Your task to perform on an android device: Open Youtube and go to the subscriptions tab Image 0: 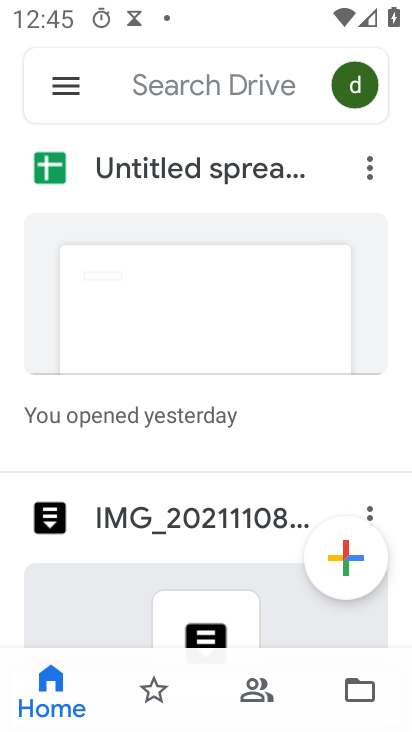
Step 0: press home button
Your task to perform on an android device: Open Youtube and go to the subscriptions tab Image 1: 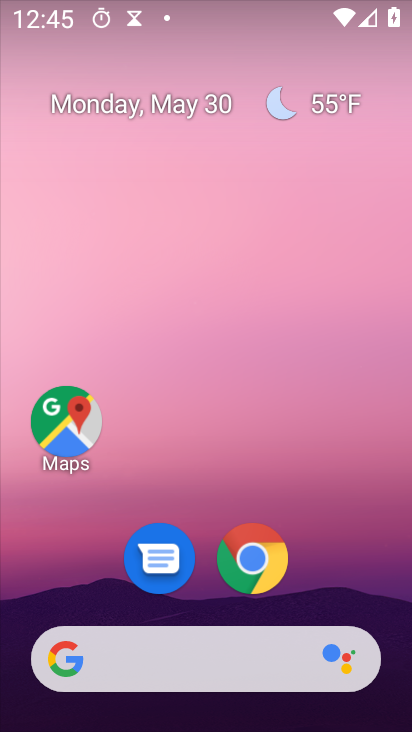
Step 1: drag from (344, 544) to (317, 106)
Your task to perform on an android device: Open Youtube and go to the subscriptions tab Image 2: 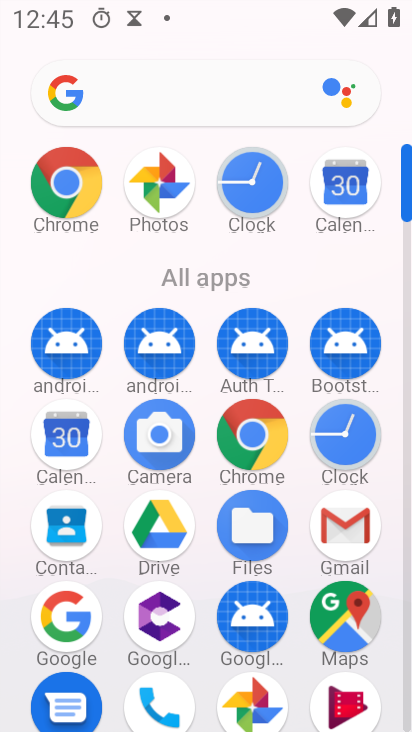
Step 2: drag from (391, 505) to (411, 601)
Your task to perform on an android device: Open Youtube and go to the subscriptions tab Image 3: 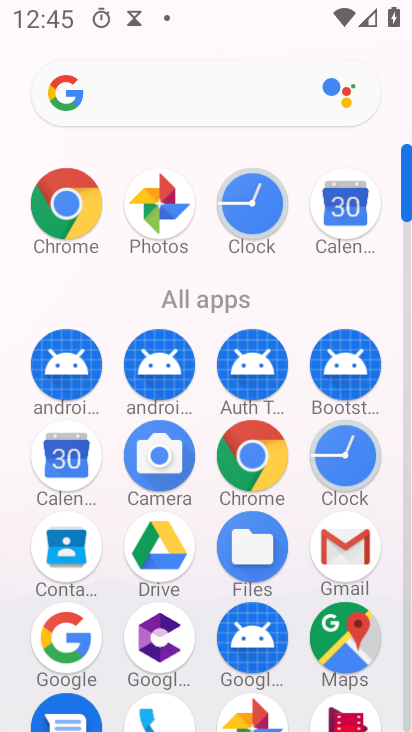
Step 3: drag from (392, 620) to (408, 389)
Your task to perform on an android device: Open Youtube and go to the subscriptions tab Image 4: 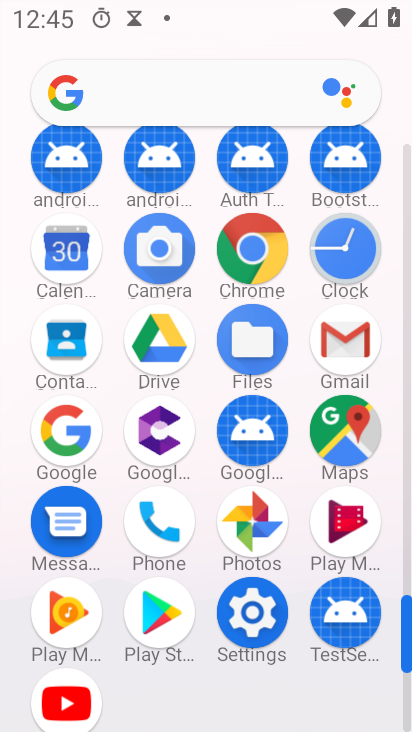
Step 4: drag from (387, 553) to (409, 167)
Your task to perform on an android device: Open Youtube and go to the subscriptions tab Image 5: 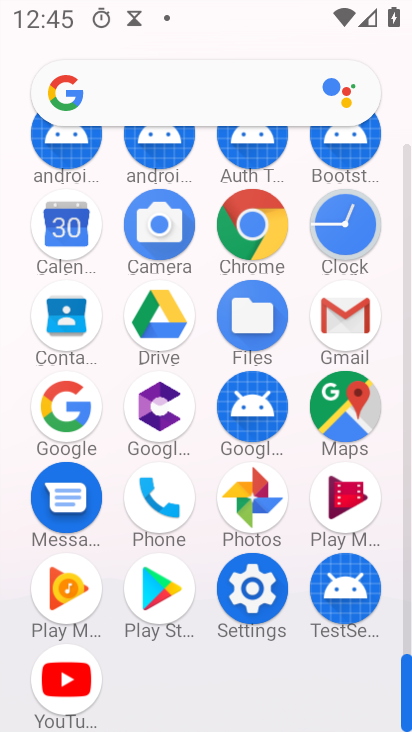
Step 5: click (51, 668)
Your task to perform on an android device: Open Youtube and go to the subscriptions tab Image 6: 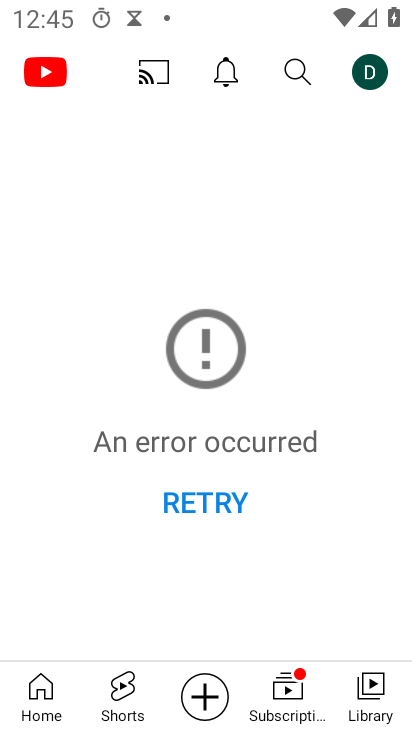
Step 6: click (290, 684)
Your task to perform on an android device: Open Youtube and go to the subscriptions tab Image 7: 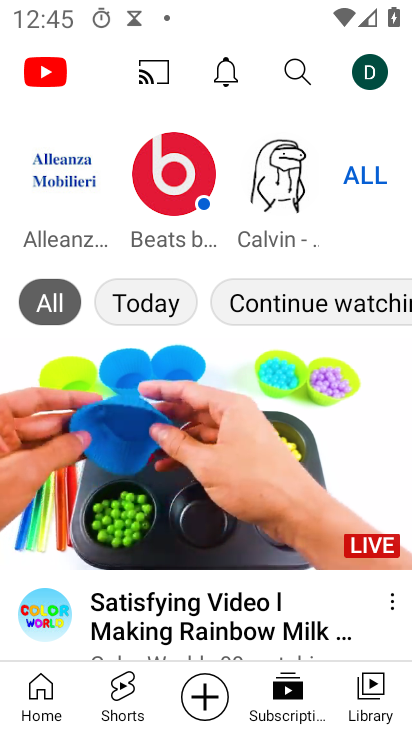
Step 7: task complete